Your task to perform on an android device: toggle translation in the chrome app Image 0: 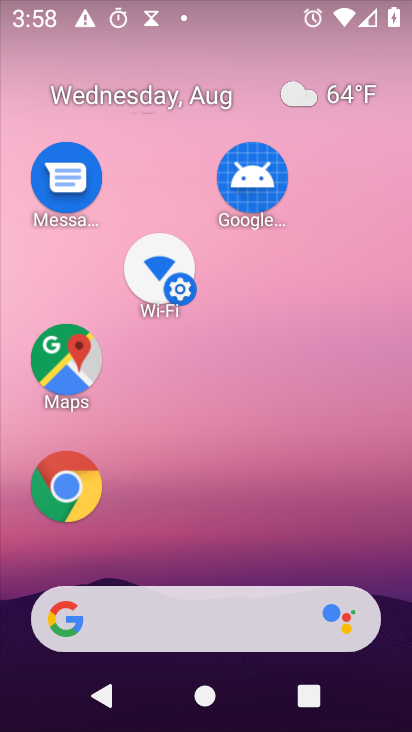
Step 0: press home button
Your task to perform on an android device: toggle translation in the chrome app Image 1: 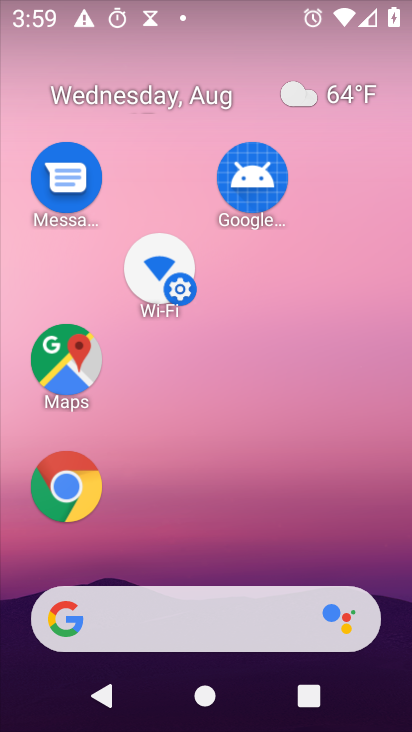
Step 1: click (68, 477)
Your task to perform on an android device: toggle translation in the chrome app Image 2: 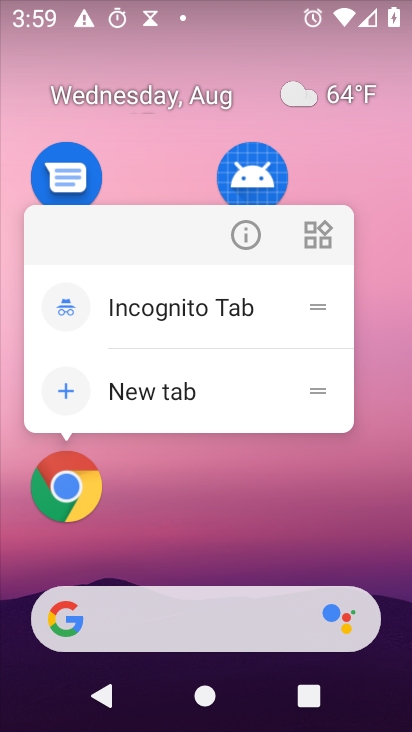
Step 2: click (68, 477)
Your task to perform on an android device: toggle translation in the chrome app Image 3: 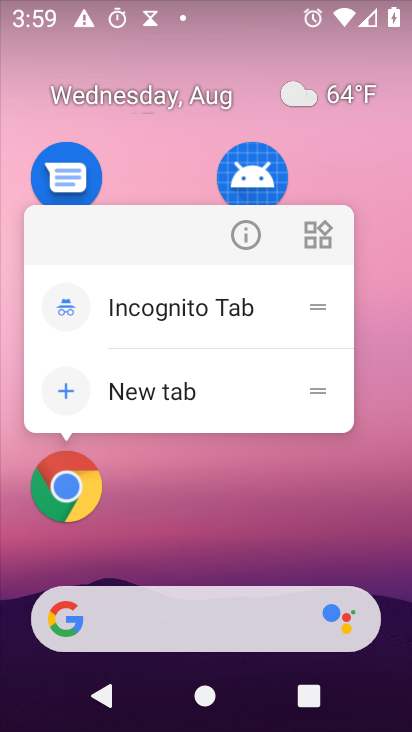
Step 3: click (68, 477)
Your task to perform on an android device: toggle translation in the chrome app Image 4: 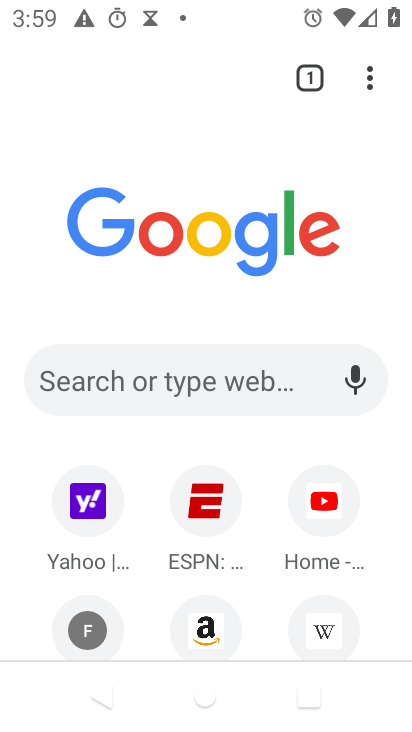
Step 4: drag from (368, 82) to (146, 551)
Your task to perform on an android device: toggle translation in the chrome app Image 5: 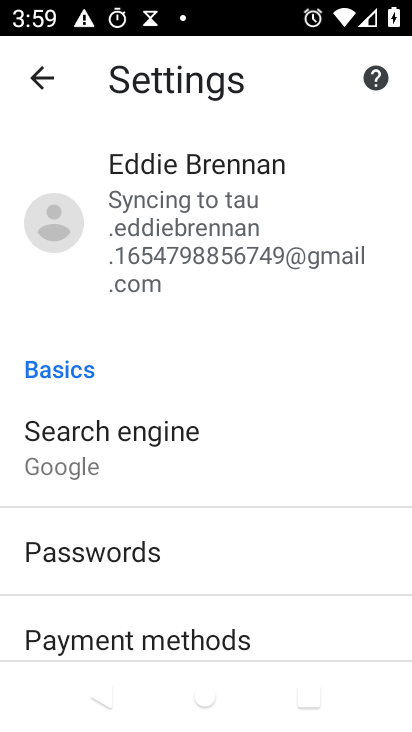
Step 5: drag from (327, 635) to (408, 275)
Your task to perform on an android device: toggle translation in the chrome app Image 6: 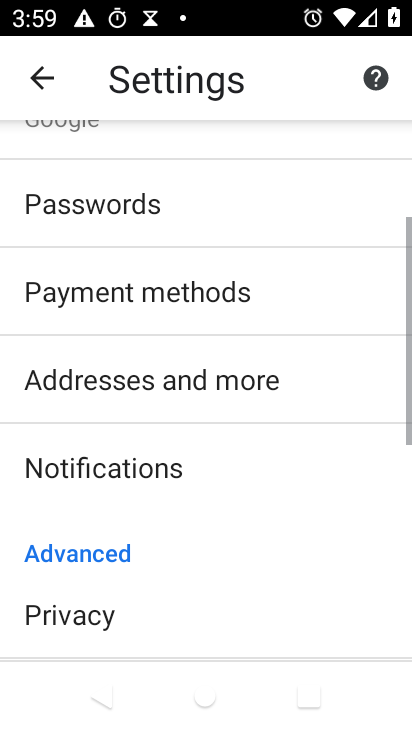
Step 6: drag from (284, 569) to (399, 117)
Your task to perform on an android device: toggle translation in the chrome app Image 7: 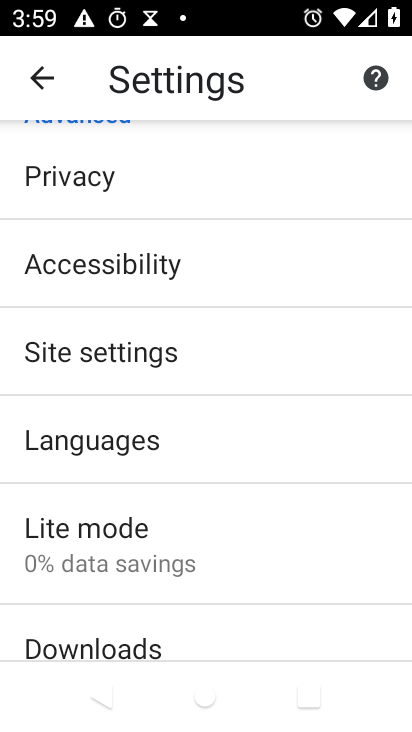
Step 7: click (102, 443)
Your task to perform on an android device: toggle translation in the chrome app Image 8: 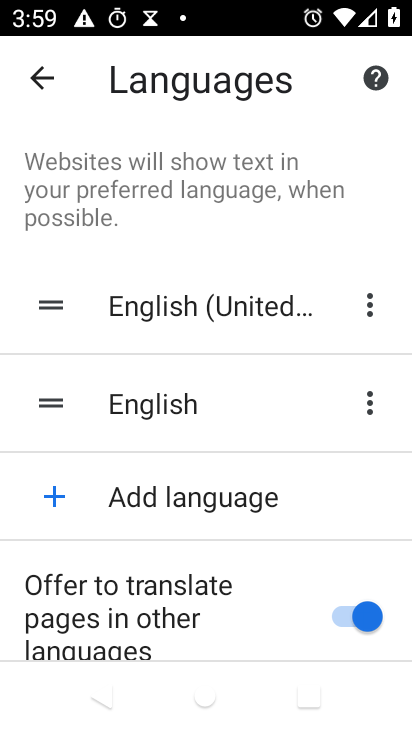
Step 8: click (356, 620)
Your task to perform on an android device: toggle translation in the chrome app Image 9: 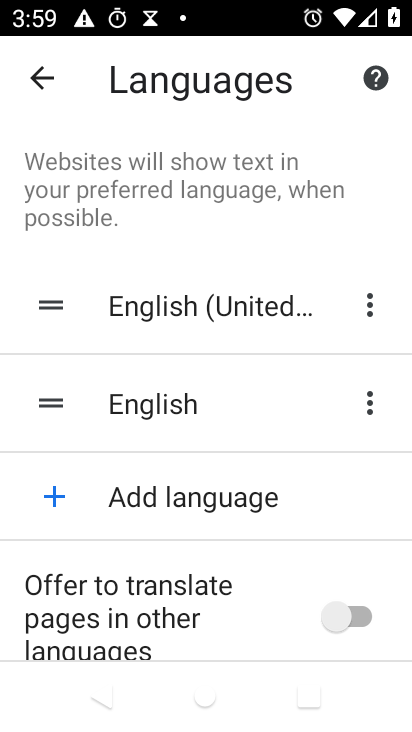
Step 9: task complete